Your task to perform on an android device: Open Android settings Image 0: 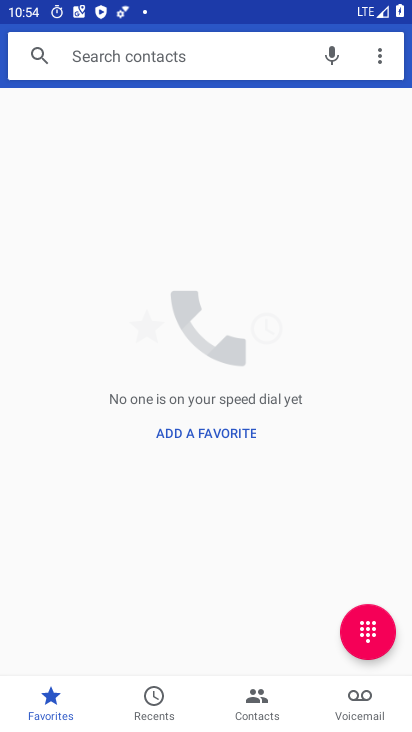
Step 0: press home button
Your task to perform on an android device: Open Android settings Image 1: 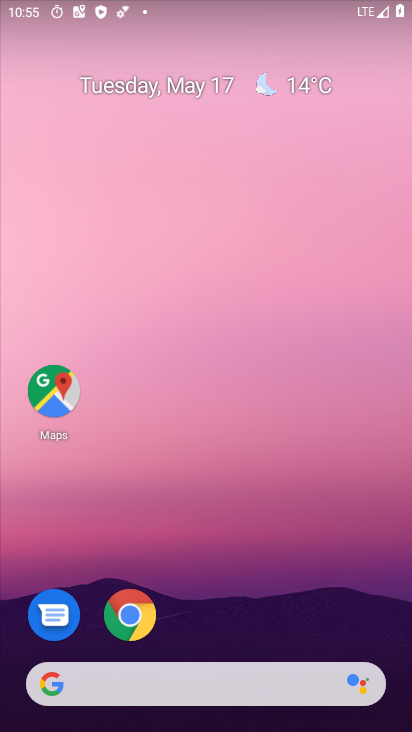
Step 1: drag from (220, 610) to (330, 178)
Your task to perform on an android device: Open Android settings Image 2: 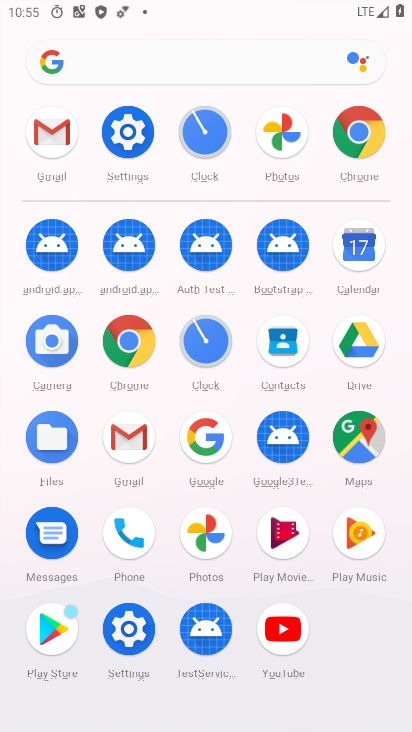
Step 2: click (119, 140)
Your task to perform on an android device: Open Android settings Image 3: 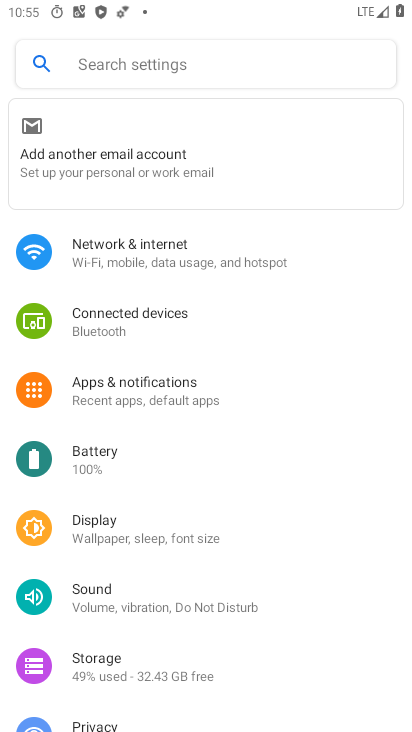
Step 3: task complete